Your task to perform on an android device: turn off location Image 0: 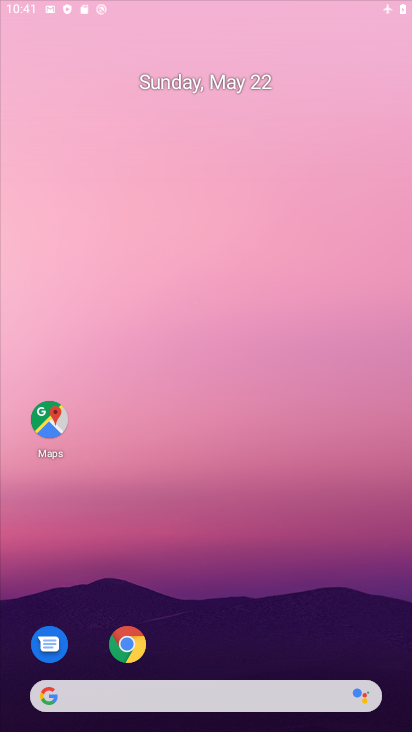
Step 0: press home button
Your task to perform on an android device: turn off location Image 1: 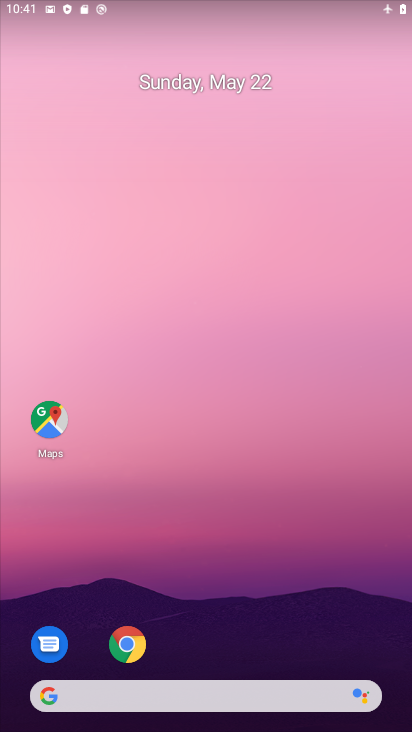
Step 1: drag from (226, 552) to (273, 44)
Your task to perform on an android device: turn off location Image 2: 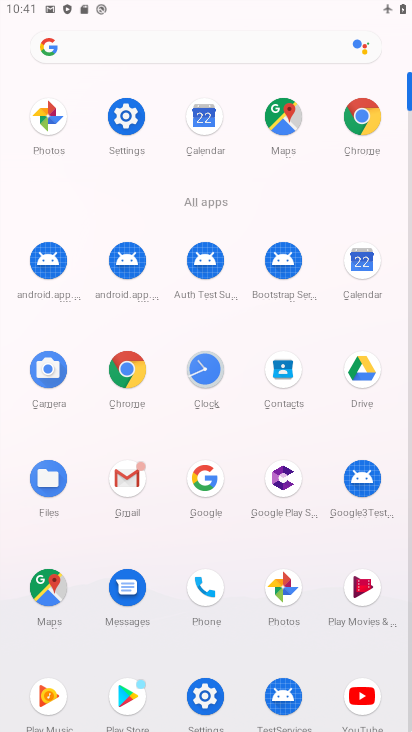
Step 2: click (125, 110)
Your task to perform on an android device: turn off location Image 3: 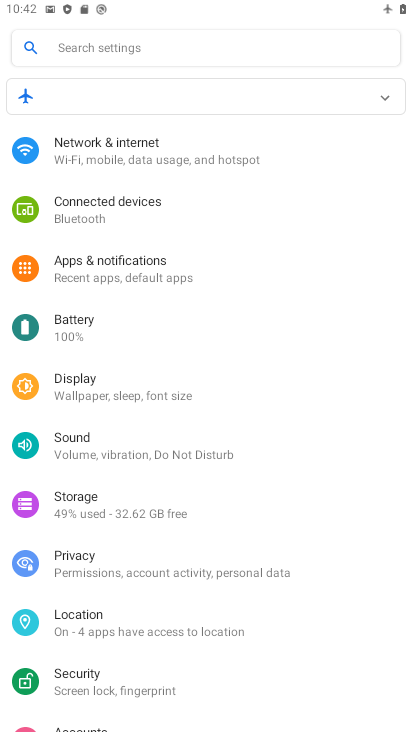
Step 3: click (112, 613)
Your task to perform on an android device: turn off location Image 4: 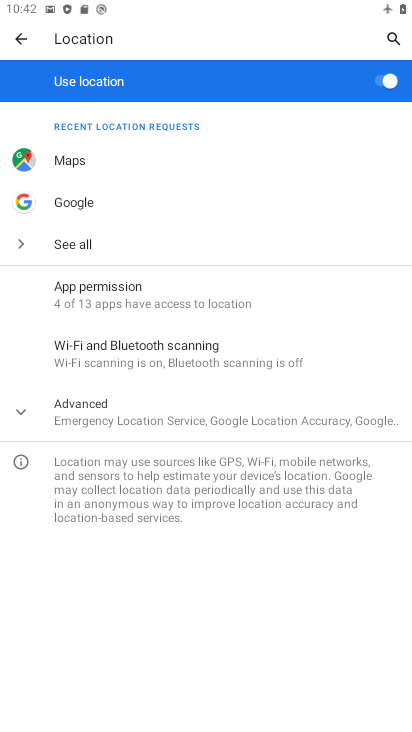
Step 4: click (379, 75)
Your task to perform on an android device: turn off location Image 5: 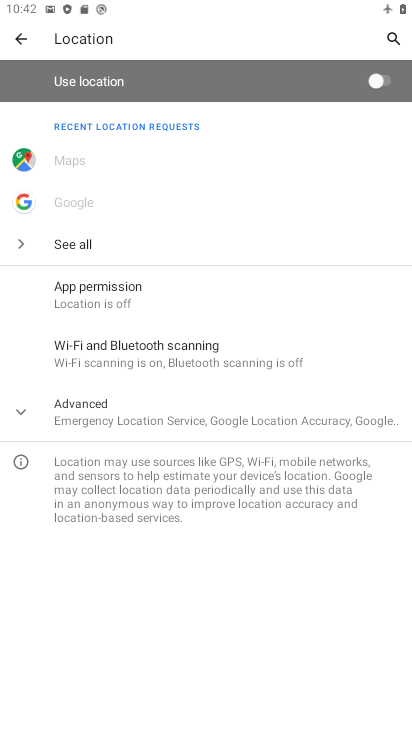
Step 5: task complete